Your task to perform on an android device: change notifications settings Image 0: 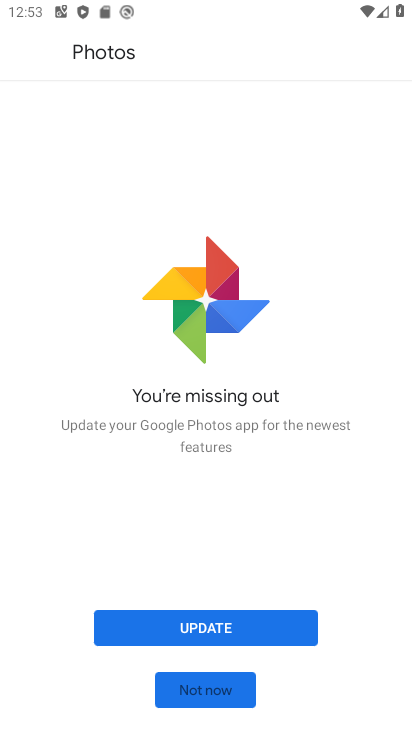
Step 0: press home button
Your task to perform on an android device: change notifications settings Image 1: 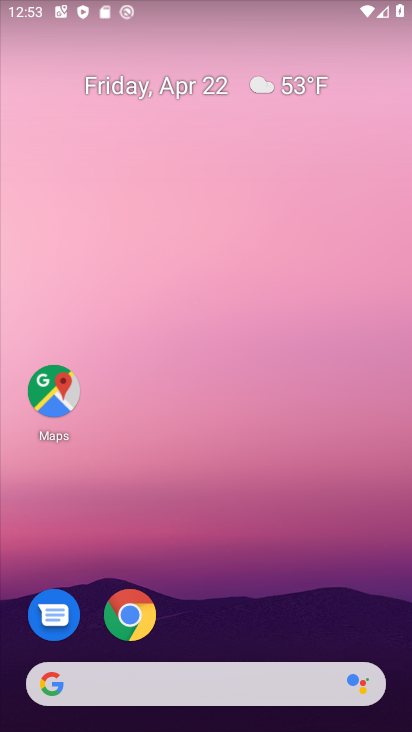
Step 1: drag from (297, 633) to (338, 6)
Your task to perform on an android device: change notifications settings Image 2: 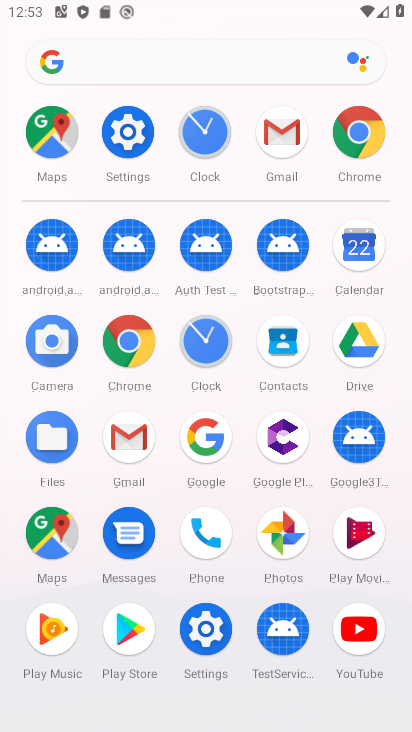
Step 2: click (122, 135)
Your task to perform on an android device: change notifications settings Image 3: 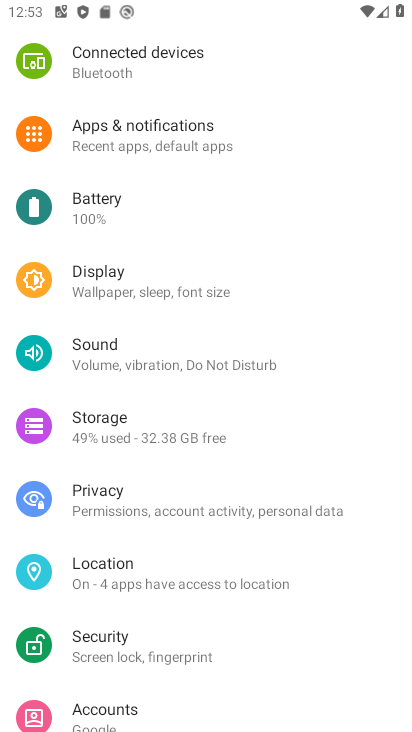
Step 3: click (197, 148)
Your task to perform on an android device: change notifications settings Image 4: 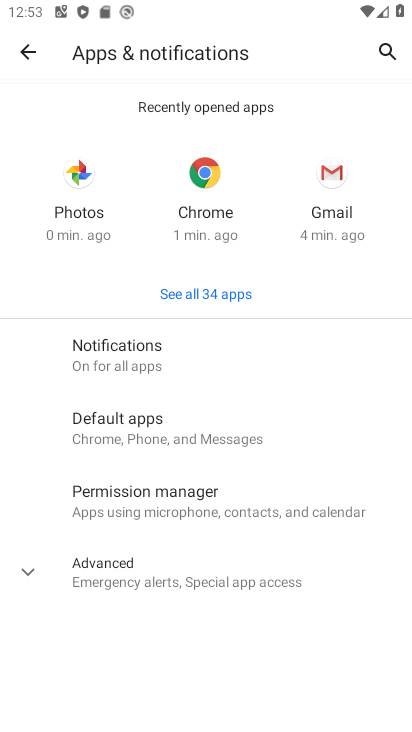
Step 4: click (118, 360)
Your task to perform on an android device: change notifications settings Image 5: 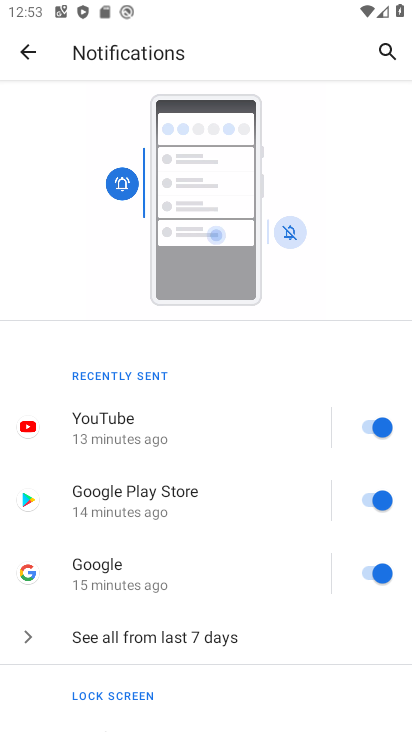
Step 5: drag from (180, 641) to (170, 295)
Your task to perform on an android device: change notifications settings Image 6: 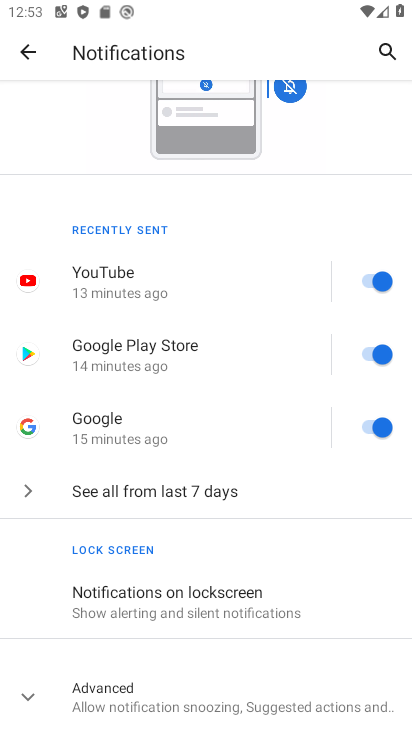
Step 6: click (135, 490)
Your task to perform on an android device: change notifications settings Image 7: 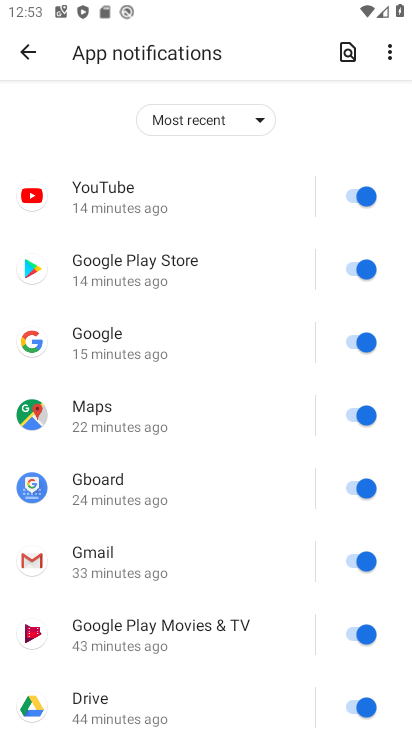
Step 7: click (260, 119)
Your task to perform on an android device: change notifications settings Image 8: 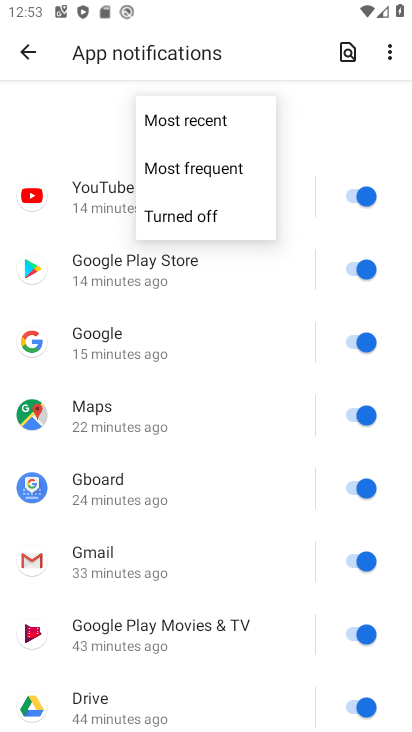
Step 8: click (186, 171)
Your task to perform on an android device: change notifications settings Image 9: 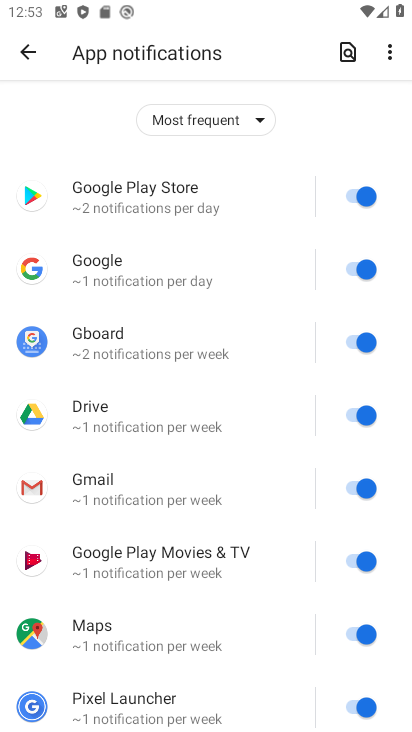
Step 9: task complete